Your task to perform on an android device: uninstall "Booking.com: Hotels and more" Image 0: 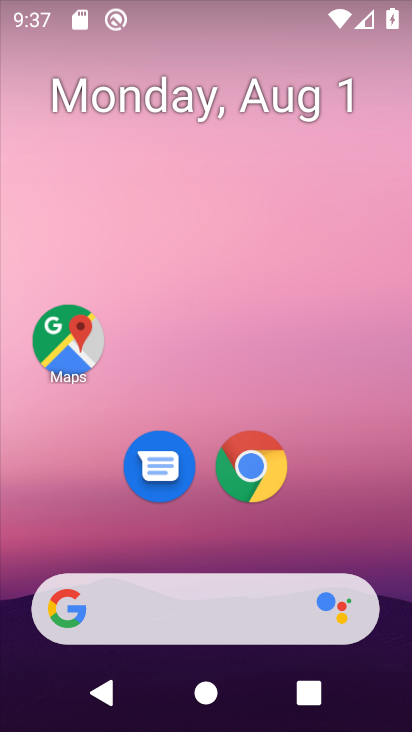
Step 0: drag from (232, 717) to (232, 222)
Your task to perform on an android device: uninstall "Booking.com: Hotels and more" Image 1: 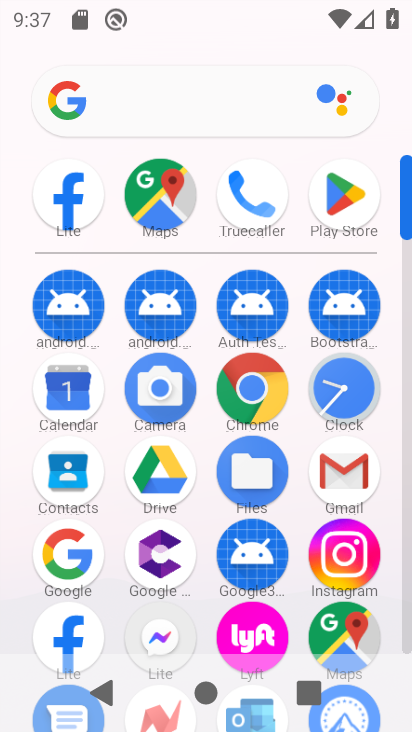
Step 1: click (334, 192)
Your task to perform on an android device: uninstall "Booking.com: Hotels and more" Image 2: 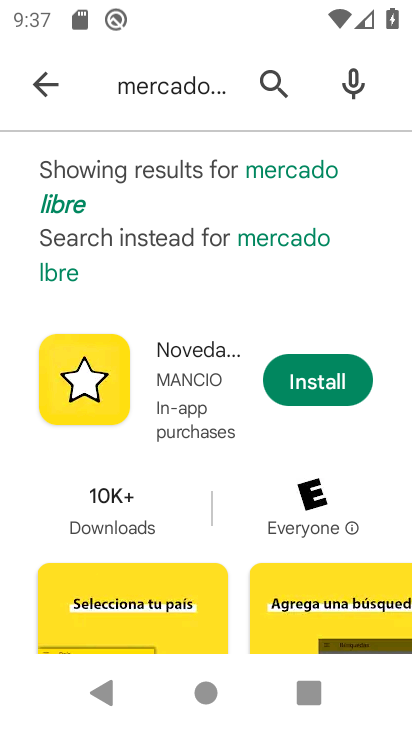
Step 2: click (269, 68)
Your task to perform on an android device: uninstall "Booking.com: Hotels and more" Image 3: 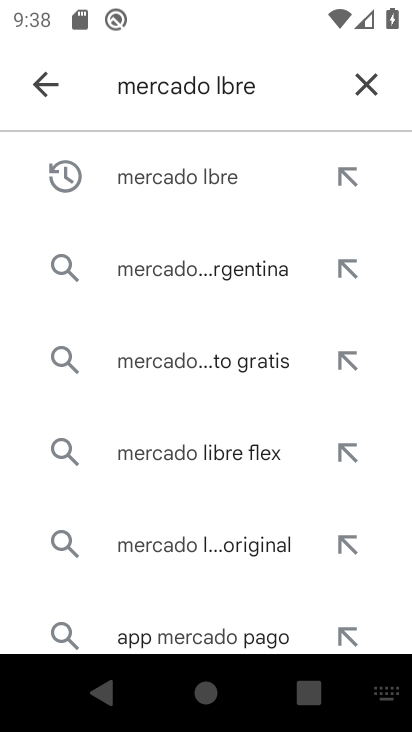
Step 3: click (365, 83)
Your task to perform on an android device: uninstall "Booking.com: Hotels and more" Image 4: 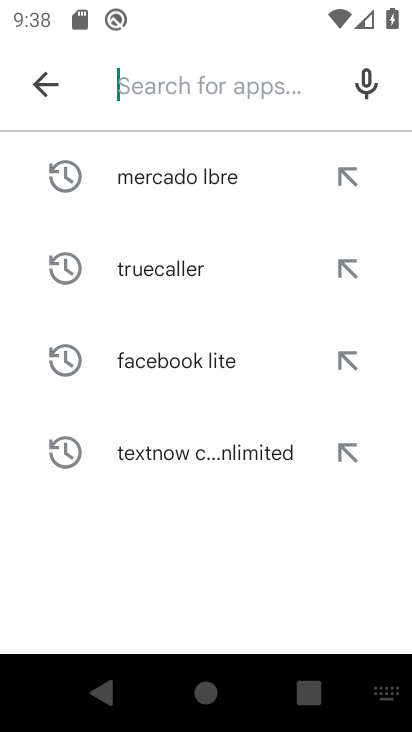
Step 4: type "Booking.com: Hotels and more"
Your task to perform on an android device: uninstall "Booking.com: Hotels and more" Image 5: 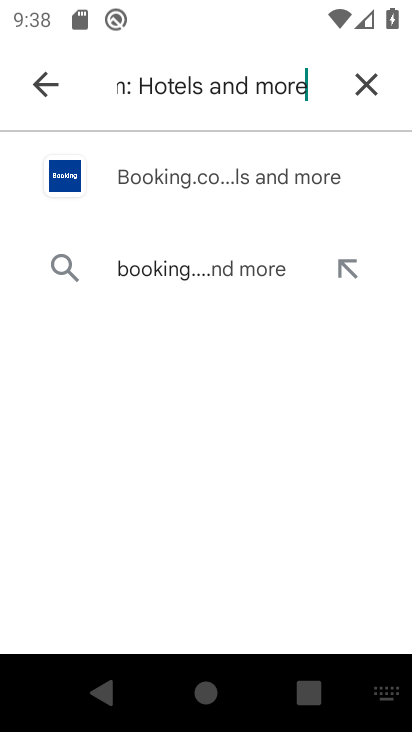
Step 5: click (246, 181)
Your task to perform on an android device: uninstall "Booking.com: Hotels and more" Image 6: 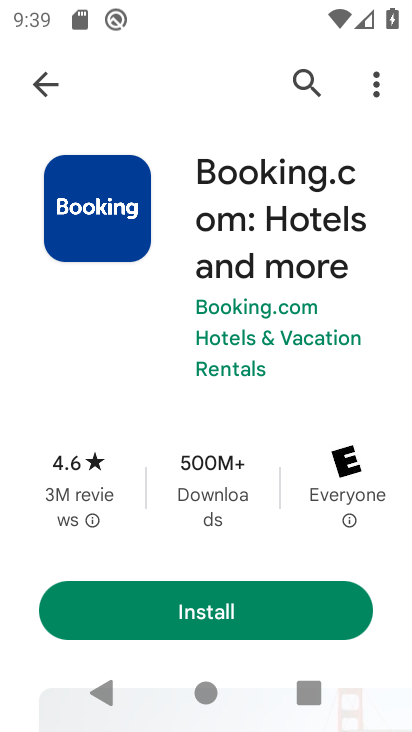
Step 6: task complete